Your task to perform on an android device: Open network settings Image 0: 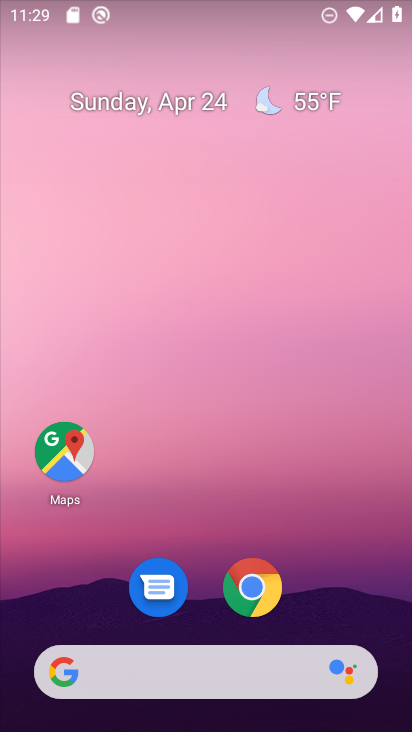
Step 0: drag from (351, 590) to (260, 108)
Your task to perform on an android device: Open network settings Image 1: 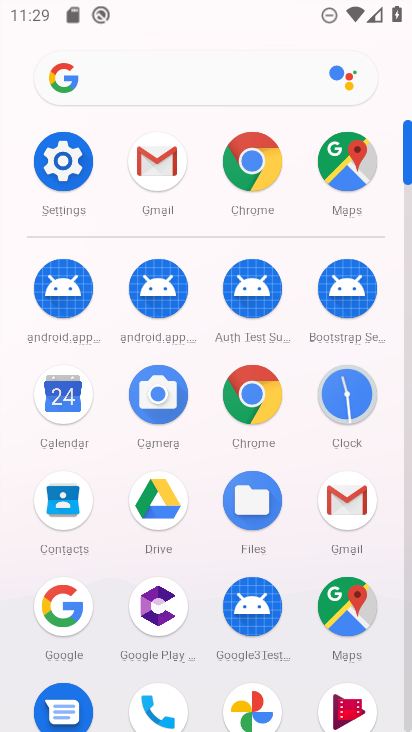
Step 1: drag from (205, 599) to (242, 268)
Your task to perform on an android device: Open network settings Image 2: 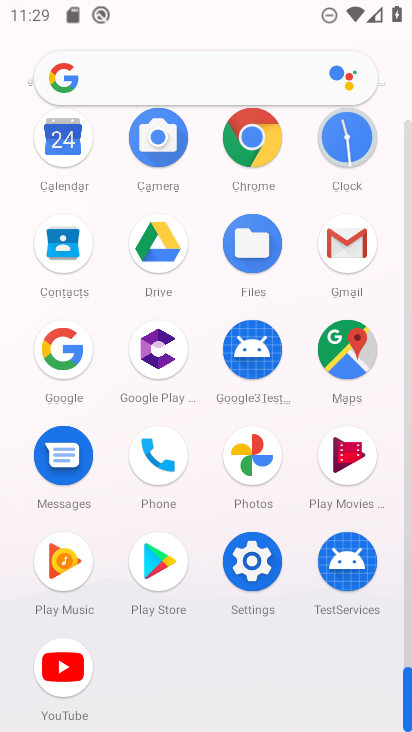
Step 2: click (271, 556)
Your task to perform on an android device: Open network settings Image 3: 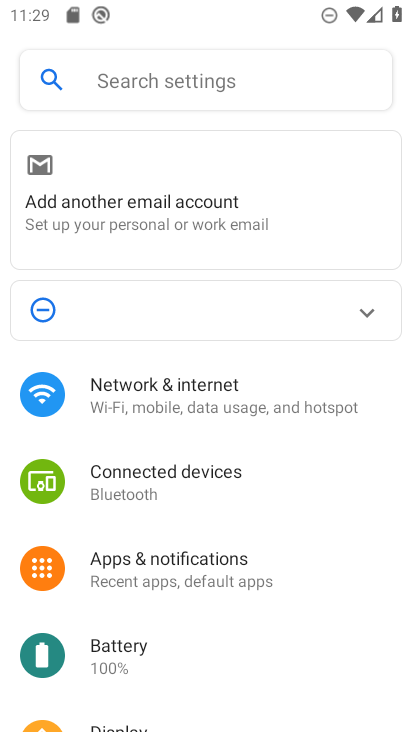
Step 3: click (206, 419)
Your task to perform on an android device: Open network settings Image 4: 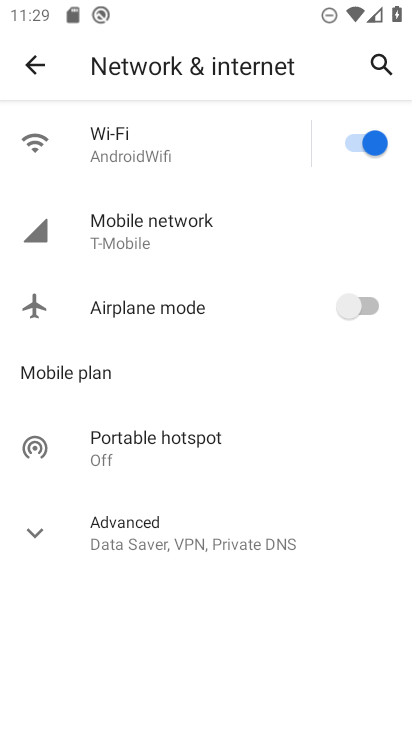
Step 4: task complete